Your task to perform on an android device: toggle javascript in the chrome app Image 0: 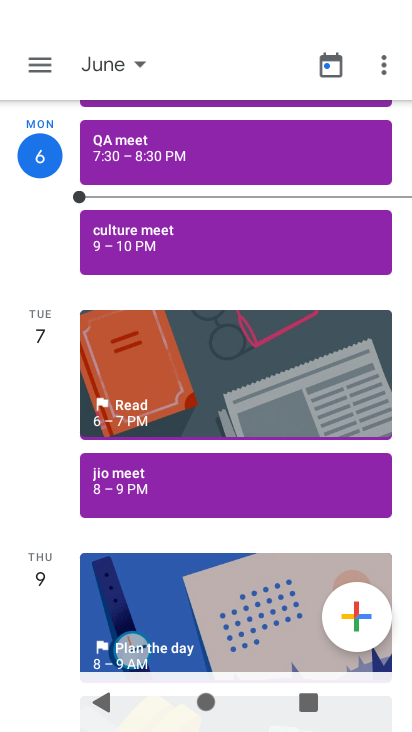
Step 0: press home button
Your task to perform on an android device: toggle javascript in the chrome app Image 1: 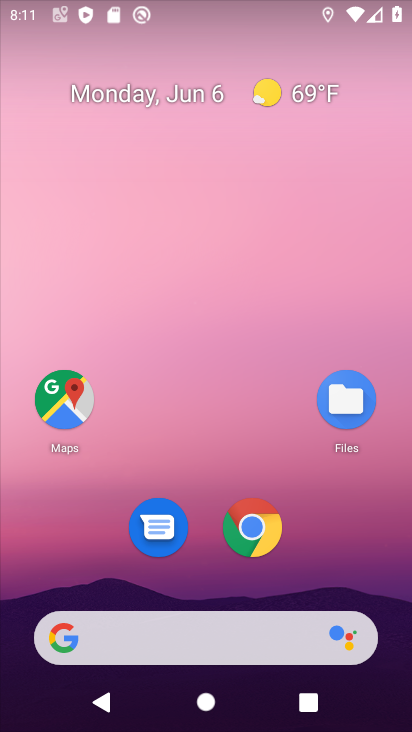
Step 1: click (255, 523)
Your task to perform on an android device: toggle javascript in the chrome app Image 2: 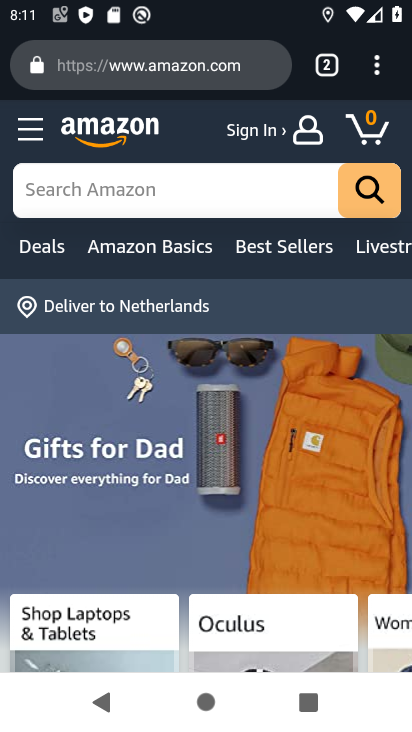
Step 2: click (375, 63)
Your task to perform on an android device: toggle javascript in the chrome app Image 3: 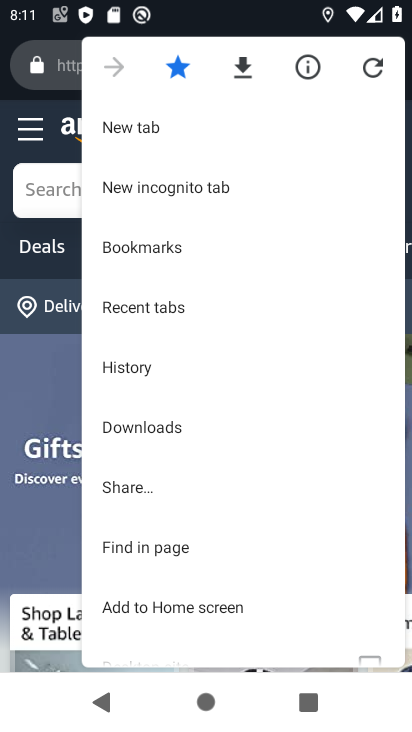
Step 3: drag from (181, 549) to (218, 233)
Your task to perform on an android device: toggle javascript in the chrome app Image 4: 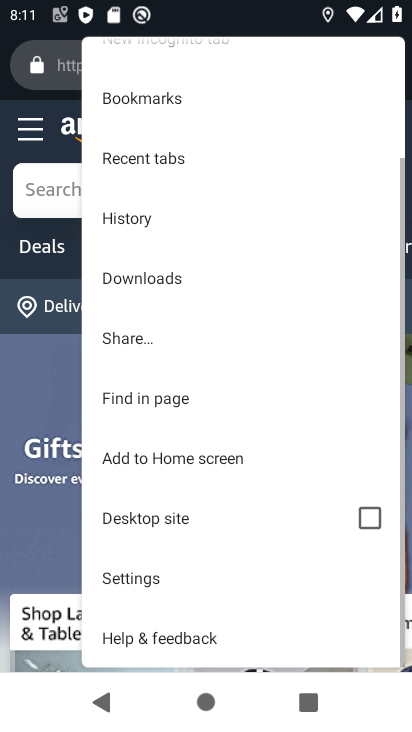
Step 4: click (161, 586)
Your task to perform on an android device: toggle javascript in the chrome app Image 5: 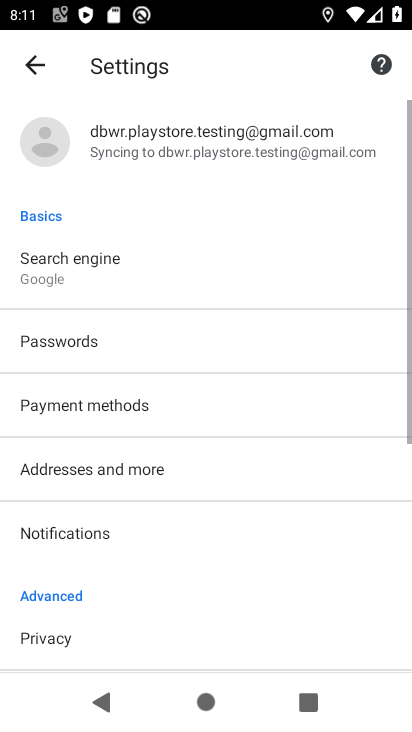
Step 5: drag from (174, 556) to (199, 266)
Your task to perform on an android device: toggle javascript in the chrome app Image 6: 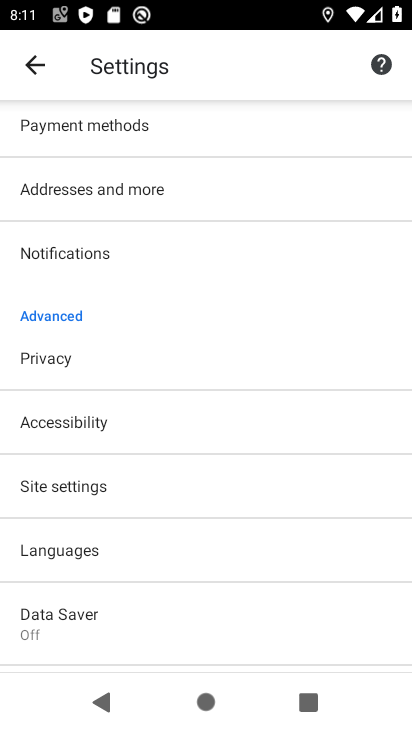
Step 6: click (101, 490)
Your task to perform on an android device: toggle javascript in the chrome app Image 7: 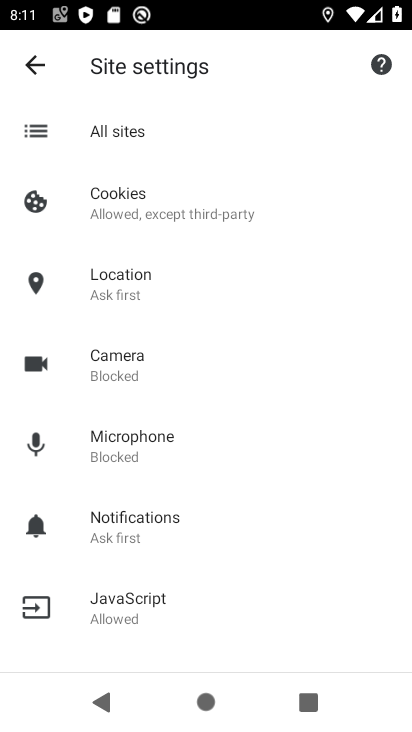
Step 7: click (124, 604)
Your task to perform on an android device: toggle javascript in the chrome app Image 8: 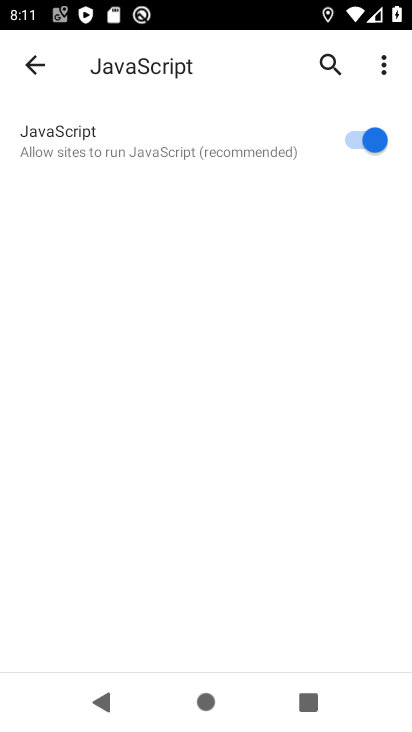
Step 8: click (366, 130)
Your task to perform on an android device: toggle javascript in the chrome app Image 9: 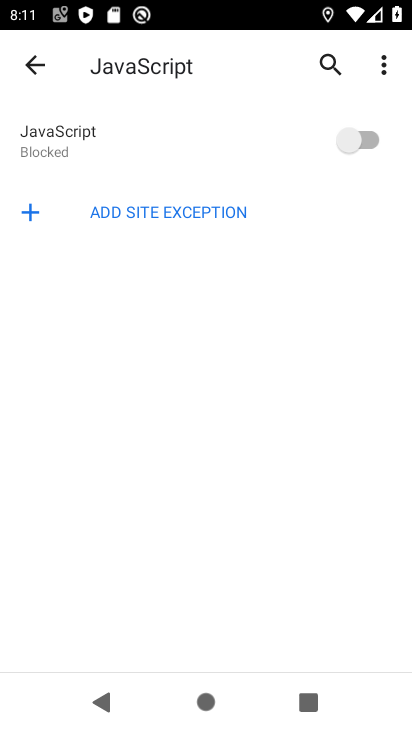
Step 9: task complete